Your task to perform on an android device: Open network settings Image 0: 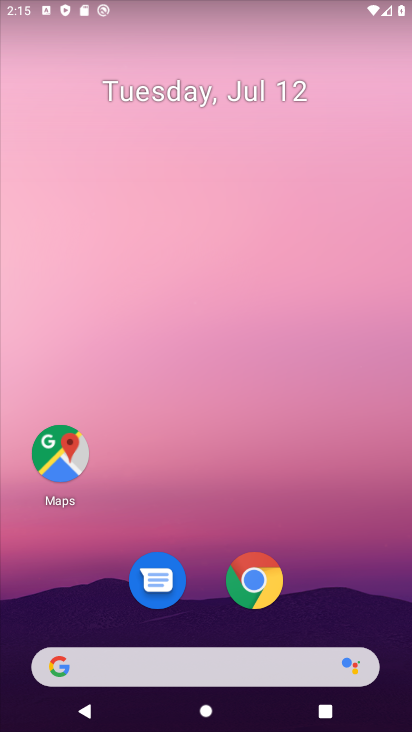
Step 0: drag from (278, 267) to (261, 606)
Your task to perform on an android device: Open network settings Image 1: 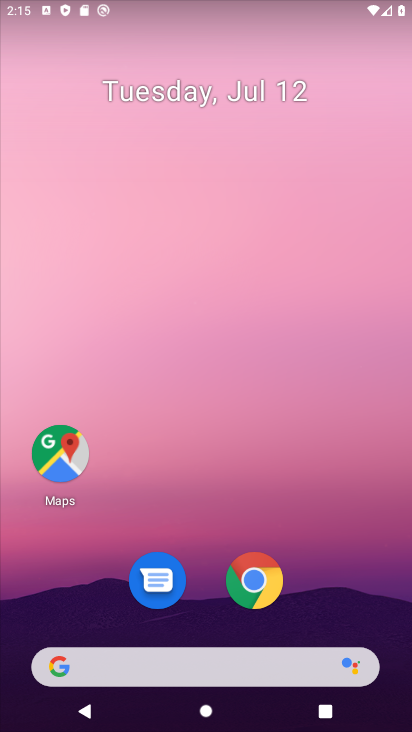
Step 1: drag from (184, 7) to (211, 434)
Your task to perform on an android device: Open network settings Image 2: 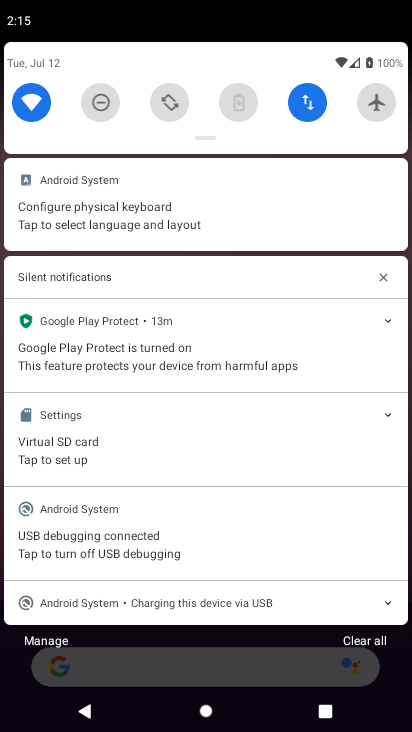
Step 2: drag from (194, 73) to (213, 435)
Your task to perform on an android device: Open network settings Image 3: 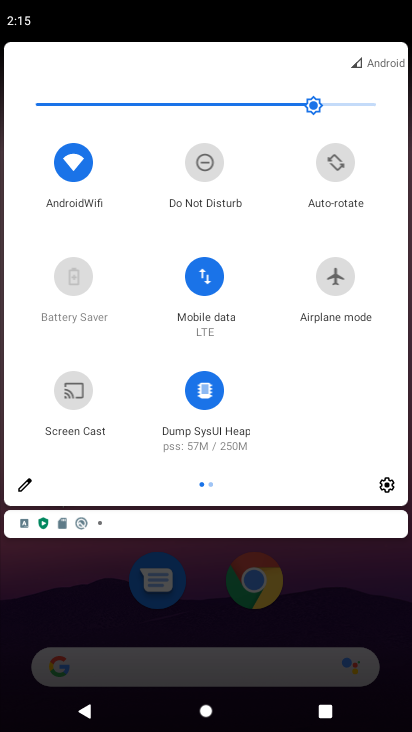
Step 3: click (387, 491)
Your task to perform on an android device: Open network settings Image 4: 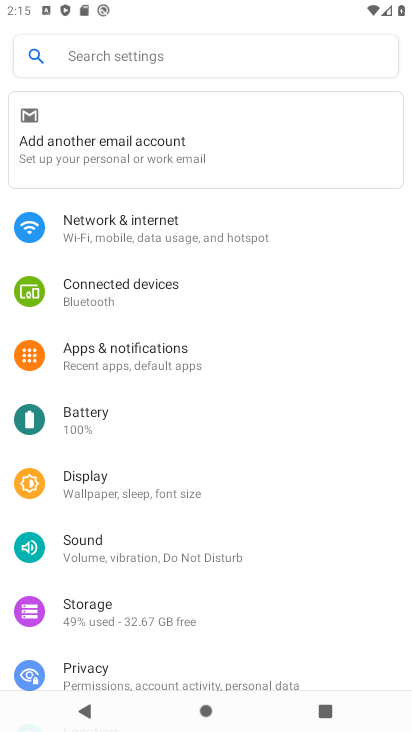
Step 4: click (134, 224)
Your task to perform on an android device: Open network settings Image 5: 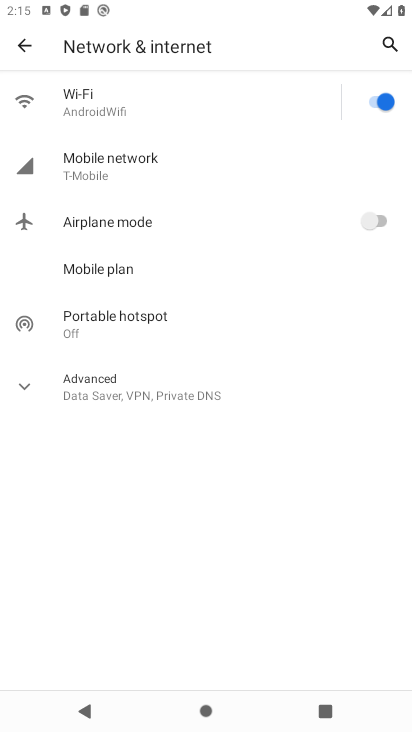
Step 5: task complete